Your task to perform on an android device: toggle pop-ups in chrome Image 0: 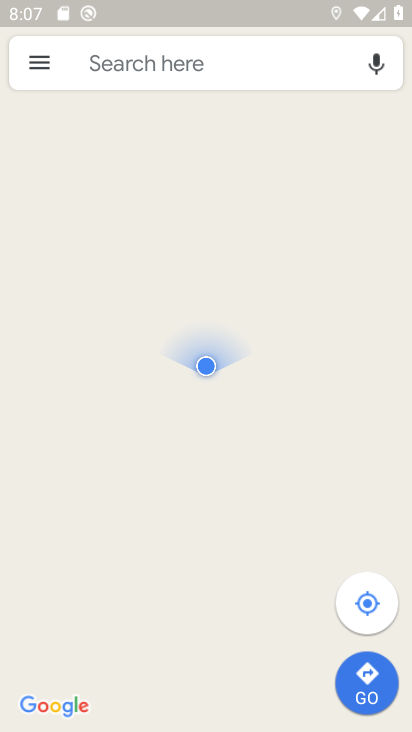
Step 0: press home button
Your task to perform on an android device: toggle pop-ups in chrome Image 1: 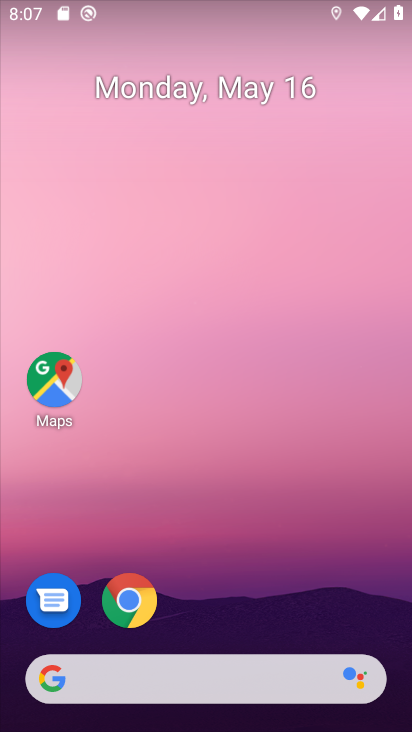
Step 1: click (133, 601)
Your task to perform on an android device: toggle pop-ups in chrome Image 2: 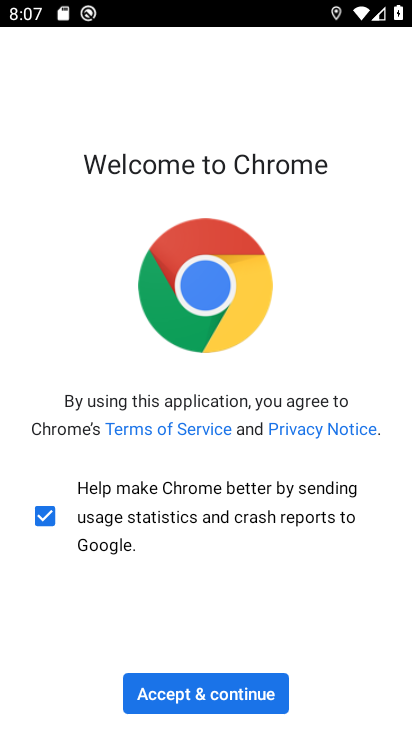
Step 2: click (214, 695)
Your task to perform on an android device: toggle pop-ups in chrome Image 3: 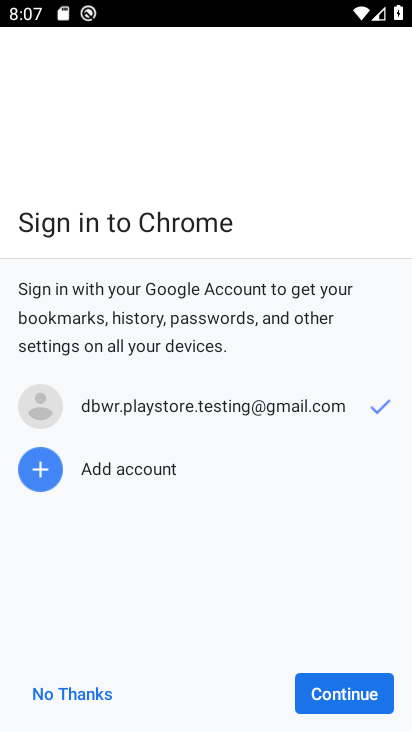
Step 3: click (342, 689)
Your task to perform on an android device: toggle pop-ups in chrome Image 4: 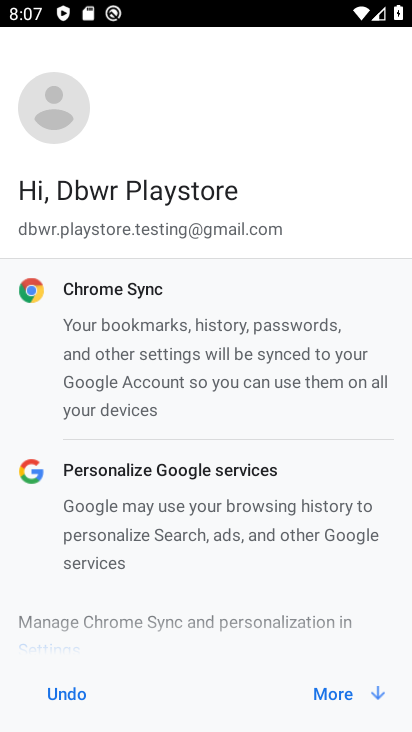
Step 4: click (336, 687)
Your task to perform on an android device: toggle pop-ups in chrome Image 5: 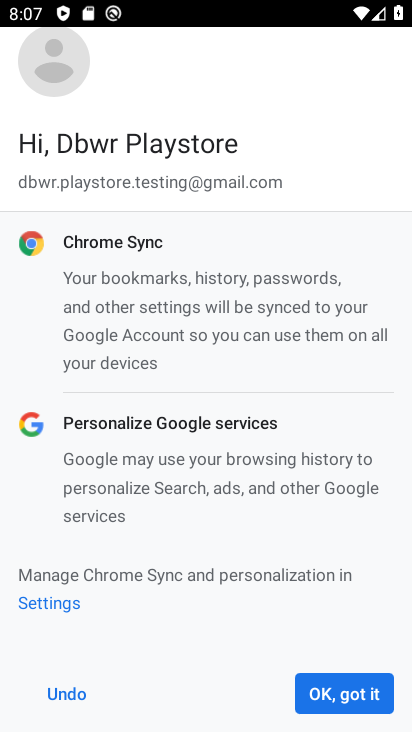
Step 5: click (335, 704)
Your task to perform on an android device: toggle pop-ups in chrome Image 6: 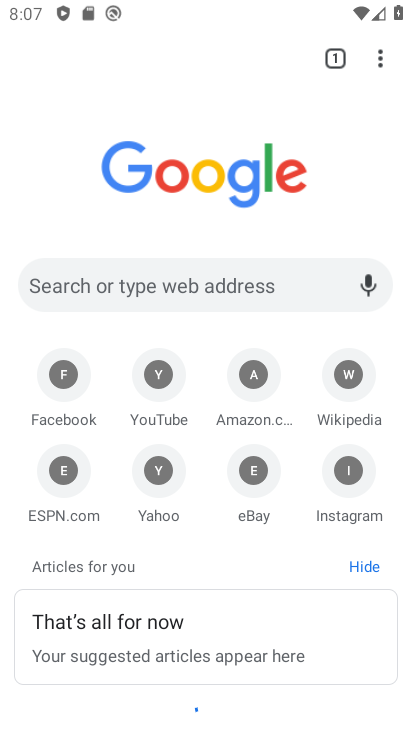
Step 6: click (381, 57)
Your task to perform on an android device: toggle pop-ups in chrome Image 7: 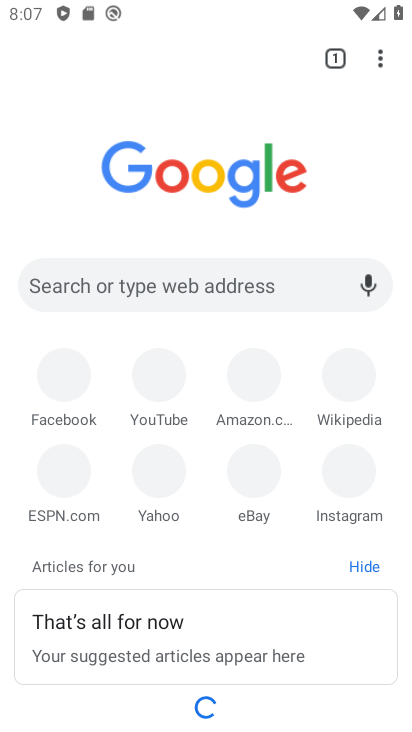
Step 7: click (381, 61)
Your task to perform on an android device: toggle pop-ups in chrome Image 8: 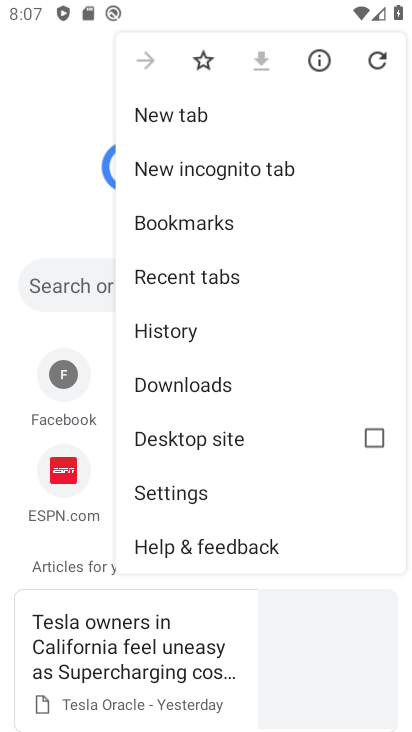
Step 8: click (213, 477)
Your task to perform on an android device: toggle pop-ups in chrome Image 9: 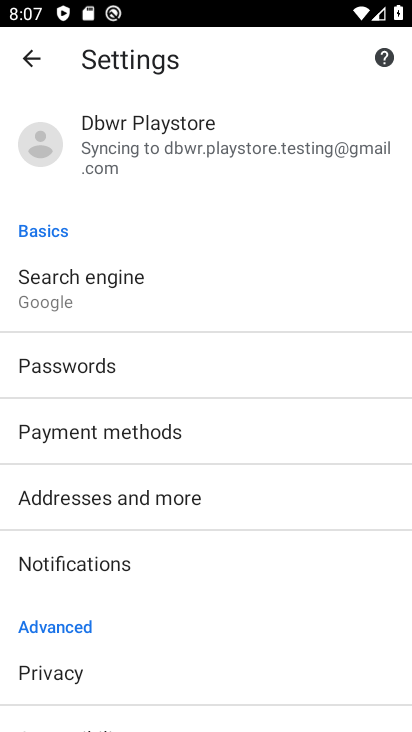
Step 9: drag from (93, 672) to (99, 536)
Your task to perform on an android device: toggle pop-ups in chrome Image 10: 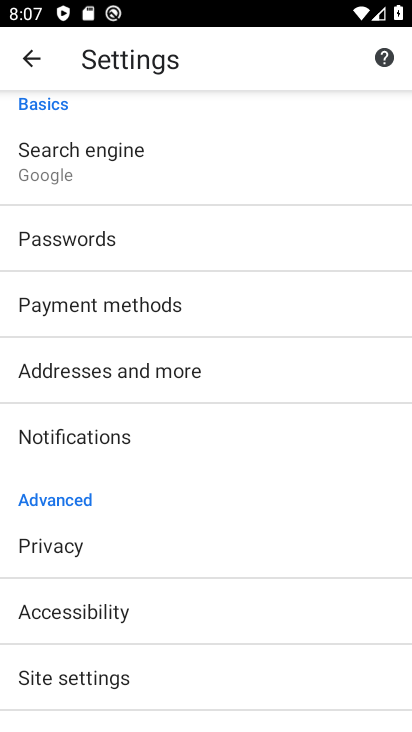
Step 10: click (80, 679)
Your task to perform on an android device: toggle pop-ups in chrome Image 11: 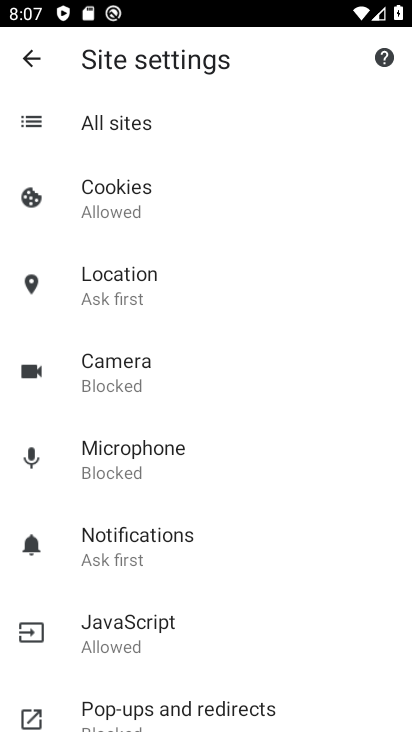
Step 11: click (191, 700)
Your task to perform on an android device: toggle pop-ups in chrome Image 12: 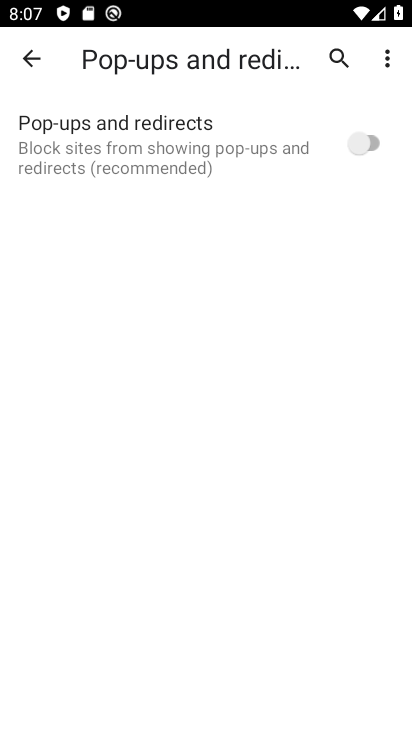
Step 12: click (363, 143)
Your task to perform on an android device: toggle pop-ups in chrome Image 13: 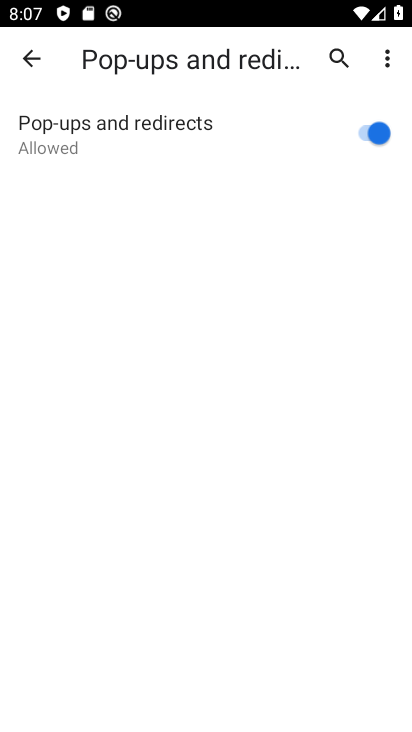
Step 13: task complete